Your task to perform on an android device: Open calendar and show me the second week of next month Image 0: 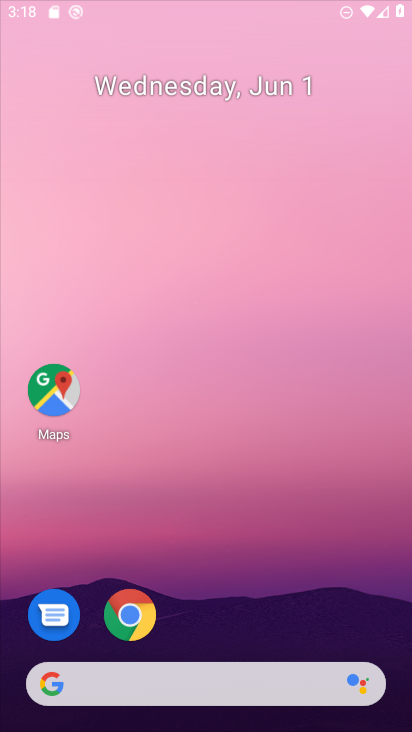
Step 0: press home button
Your task to perform on an android device: Open calendar and show me the second week of next month Image 1: 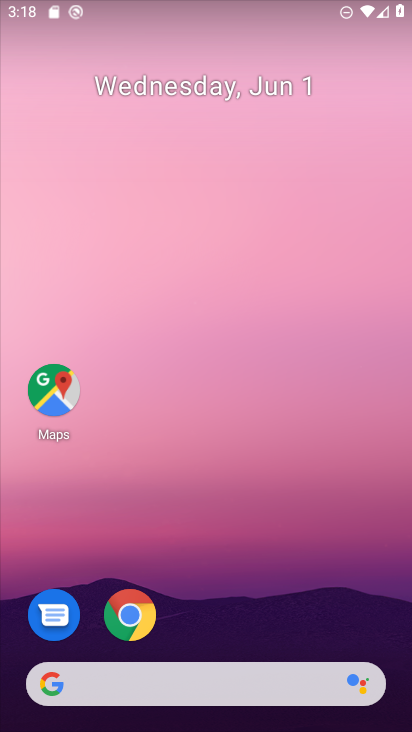
Step 1: drag from (203, 642) to (217, 49)
Your task to perform on an android device: Open calendar and show me the second week of next month Image 2: 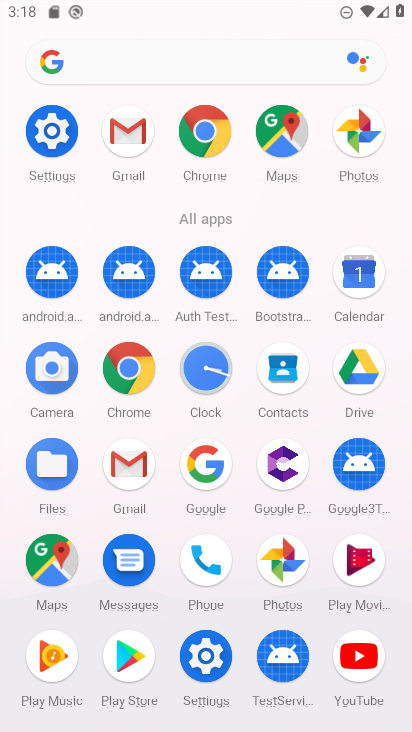
Step 2: click (360, 270)
Your task to perform on an android device: Open calendar and show me the second week of next month Image 3: 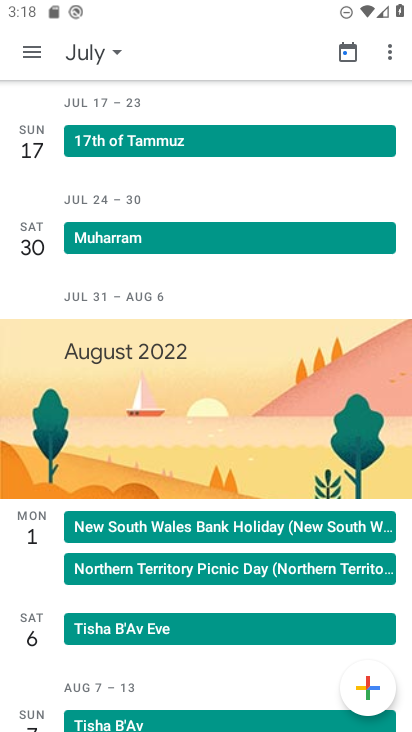
Step 3: click (30, 47)
Your task to perform on an android device: Open calendar and show me the second week of next month Image 4: 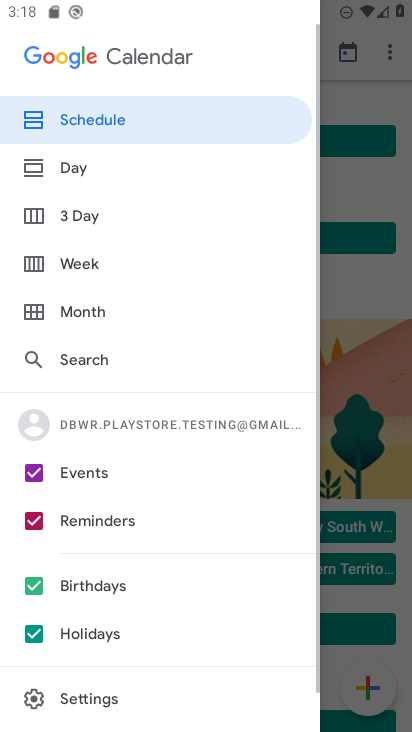
Step 4: click (68, 262)
Your task to perform on an android device: Open calendar and show me the second week of next month Image 5: 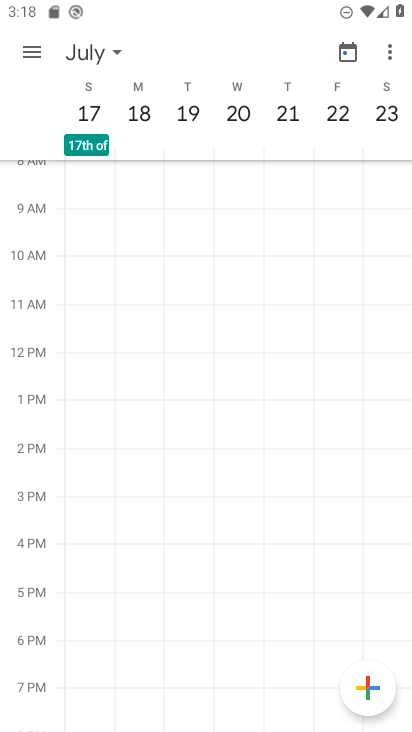
Step 5: drag from (90, 111) to (400, 96)
Your task to perform on an android device: Open calendar and show me the second week of next month Image 6: 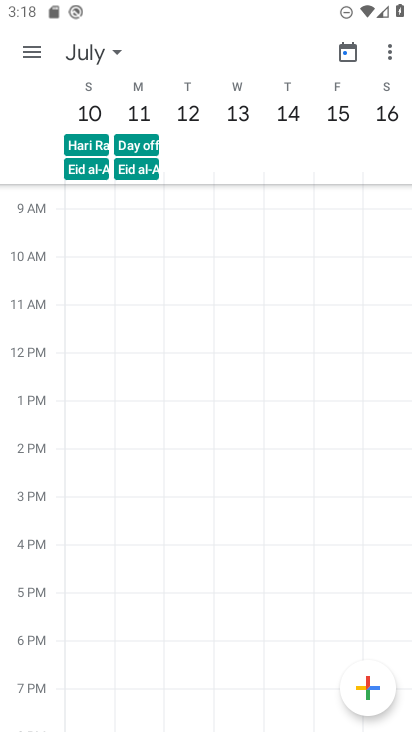
Step 6: click (85, 112)
Your task to perform on an android device: Open calendar and show me the second week of next month Image 7: 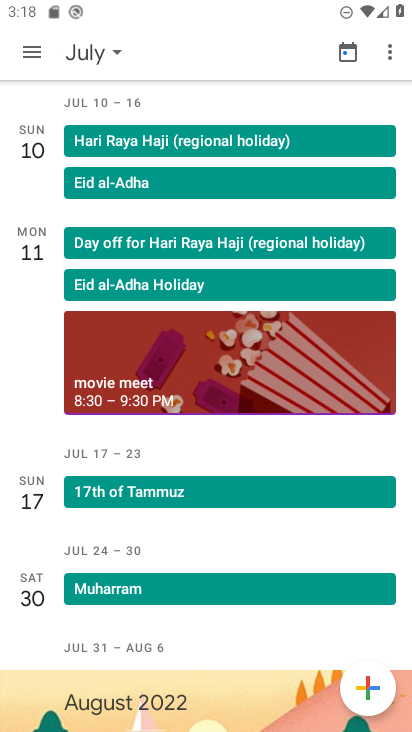
Step 7: task complete